Your task to perform on an android device: Open Google Chrome and open the bookmarks view Image 0: 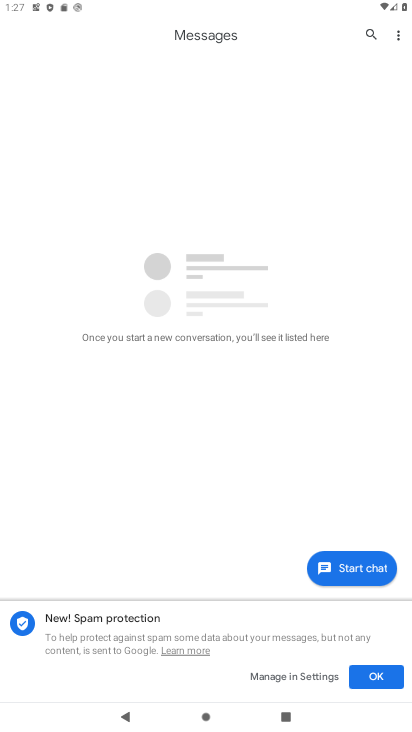
Step 0: press back button
Your task to perform on an android device: Open Google Chrome and open the bookmarks view Image 1: 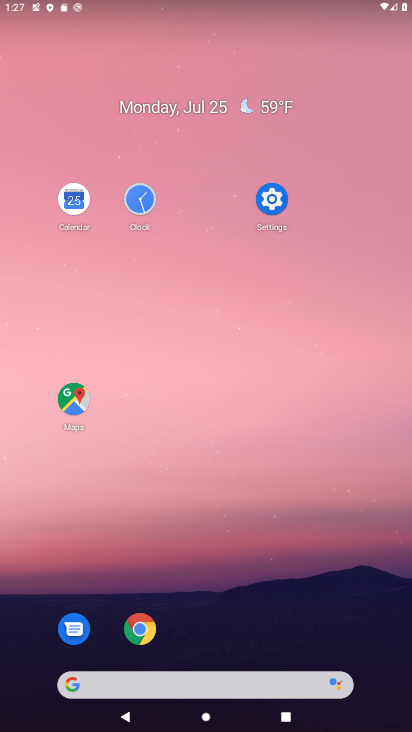
Step 1: click (141, 628)
Your task to perform on an android device: Open Google Chrome and open the bookmarks view Image 2: 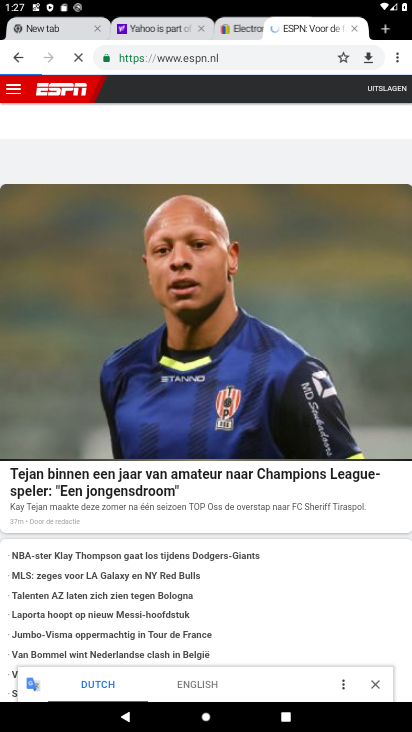
Step 2: click (384, 26)
Your task to perform on an android device: Open Google Chrome and open the bookmarks view Image 3: 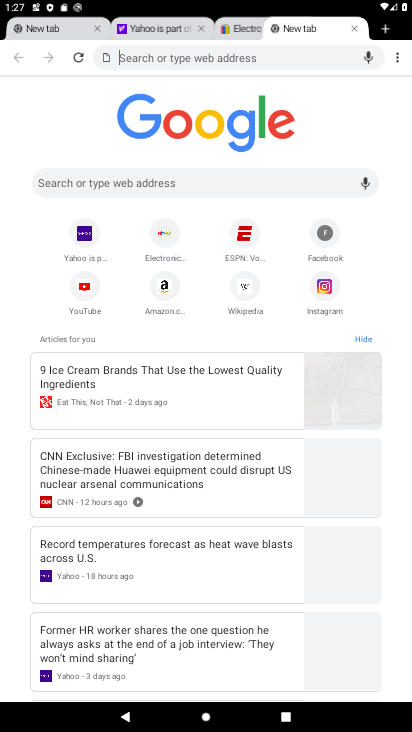
Step 3: click (393, 52)
Your task to perform on an android device: Open Google Chrome and open the bookmarks view Image 4: 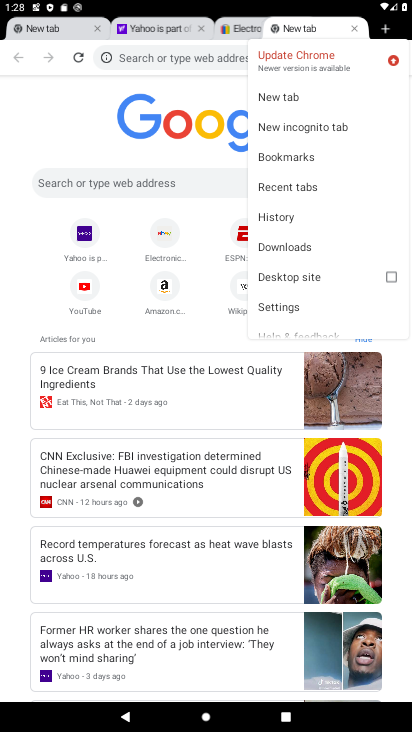
Step 4: click (314, 165)
Your task to perform on an android device: Open Google Chrome and open the bookmarks view Image 5: 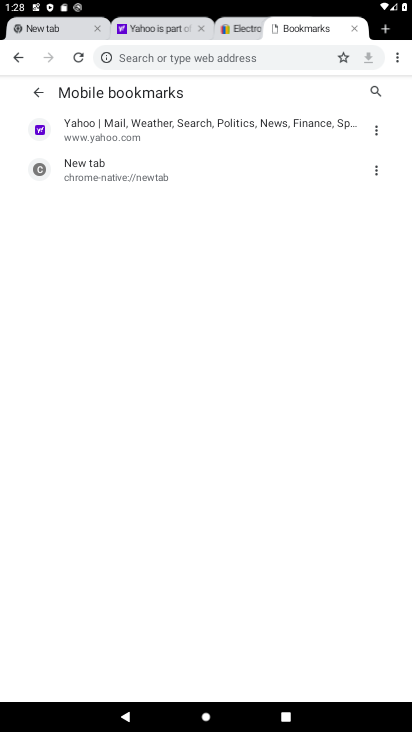
Step 5: task complete